Your task to perform on an android device: Search for vegetarian restaurants on Maps Image 0: 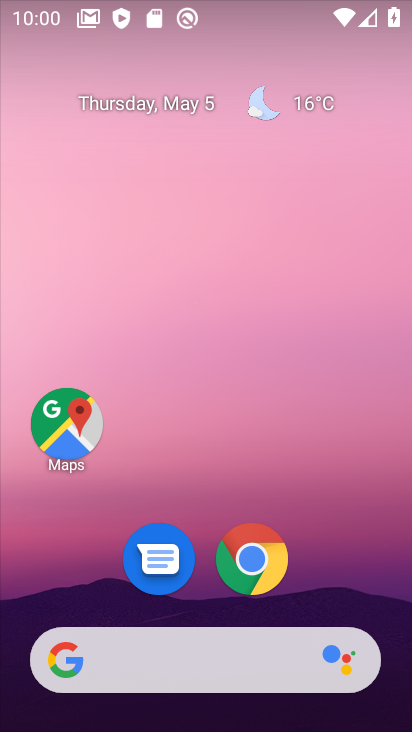
Step 0: click (339, 601)
Your task to perform on an android device: Search for vegetarian restaurants on Maps Image 1: 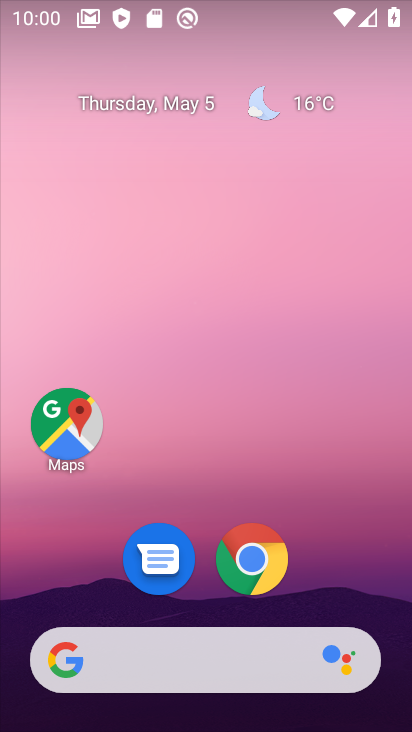
Step 1: click (74, 418)
Your task to perform on an android device: Search for vegetarian restaurants on Maps Image 2: 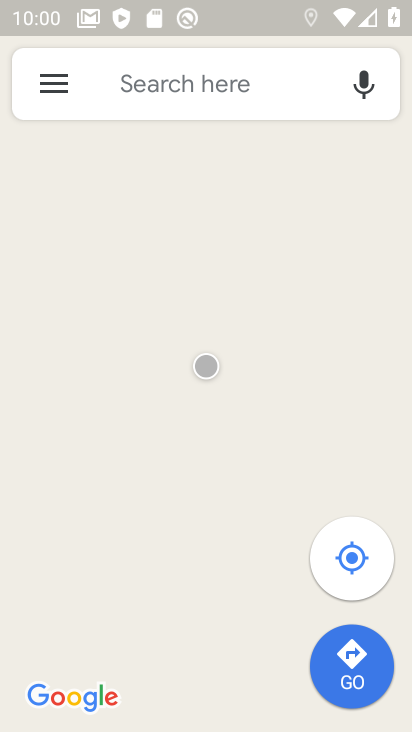
Step 2: click (149, 84)
Your task to perform on an android device: Search for vegetarian restaurants on Maps Image 3: 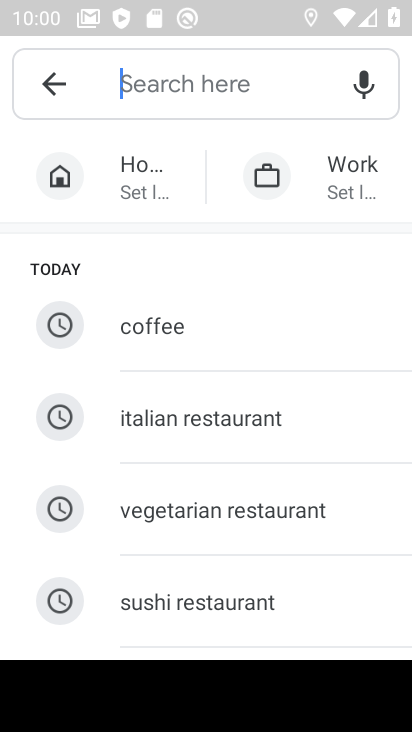
Step 3: click (332, 500)
Your task to perform on an android device: Search for vegetarian restaurants on Maps Image 4: 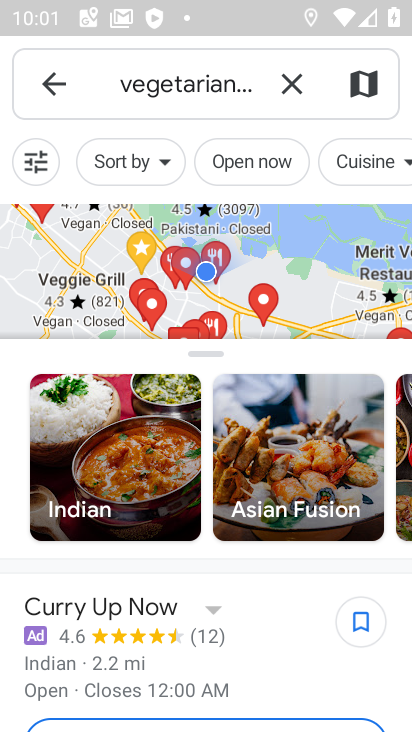
Step 4: task complete